Your task to perform on an android device: Add "apple airpods pro" to the cart on walmart Image 0: 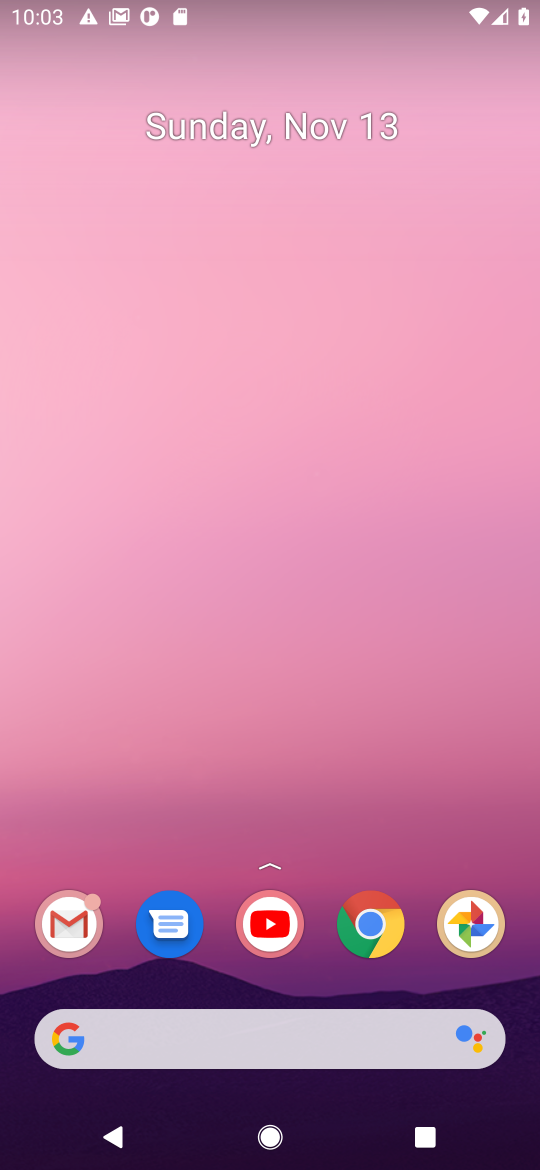
Step 0: click (373, 930)
Your task to perform on an android device: Add "apple airpods pro" to the cart on walmart Image 1: 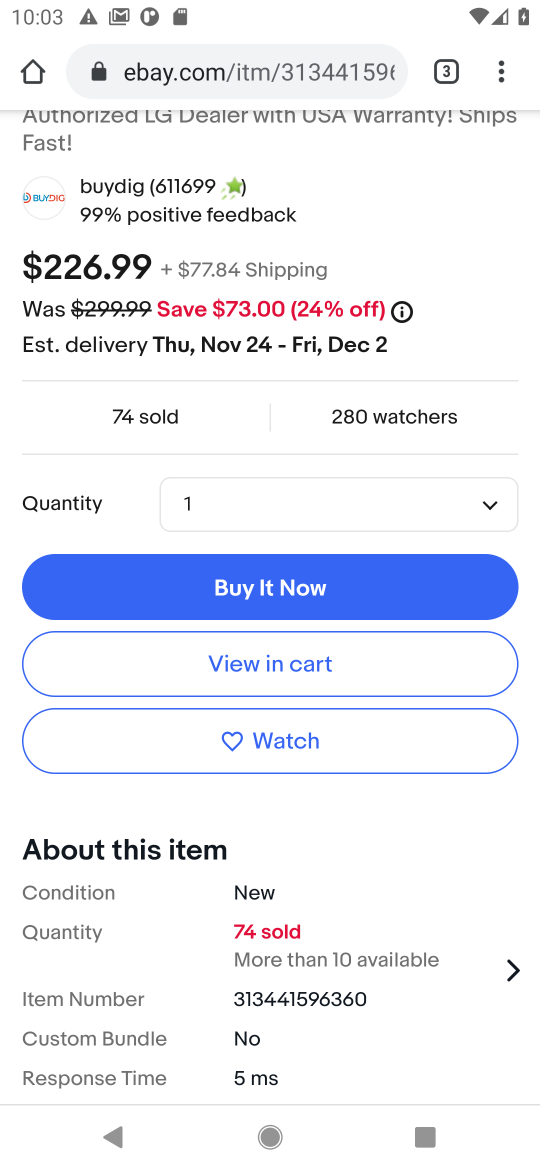
Step 1: click (208, 80)
Your task to perform on an android device: Add "apple airpods pro" to the cart on walmart Image 2: 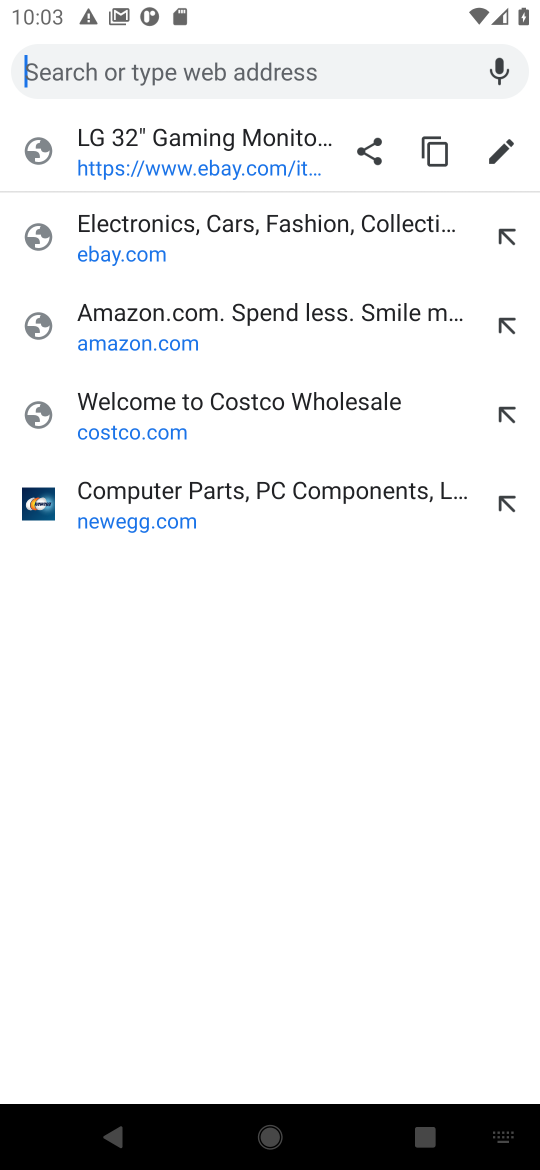
Step 2: type "walmart.com"
Your task to perform on an android device: Add "apple airpods pro" to the cart on walmart Image 3: 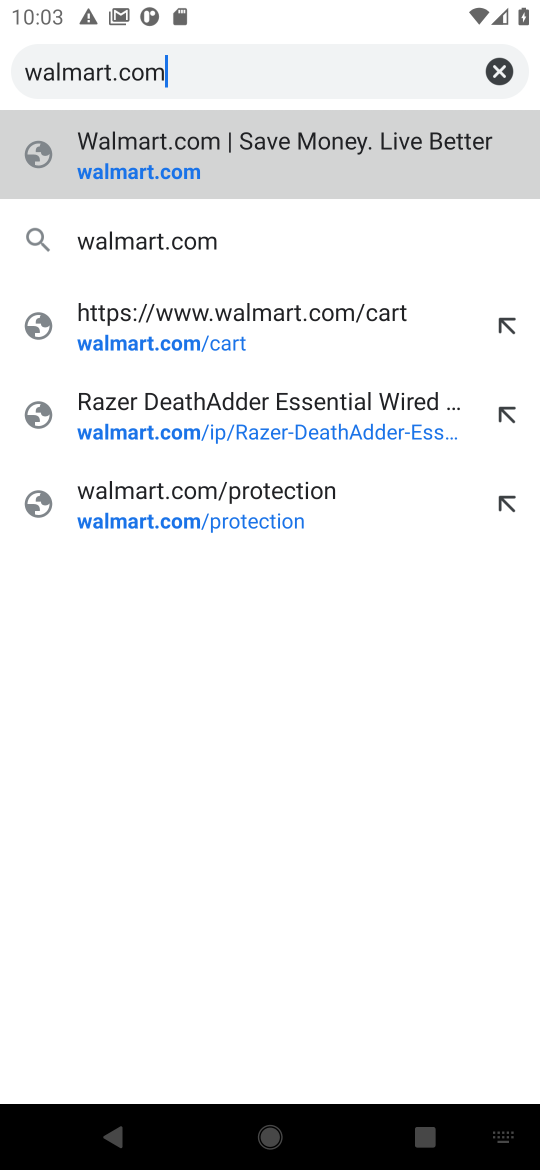
Step 3: click (131, 187)
Your task to perform on an android device: Add "apple airpods pro" to the cart on walmart Image 4: 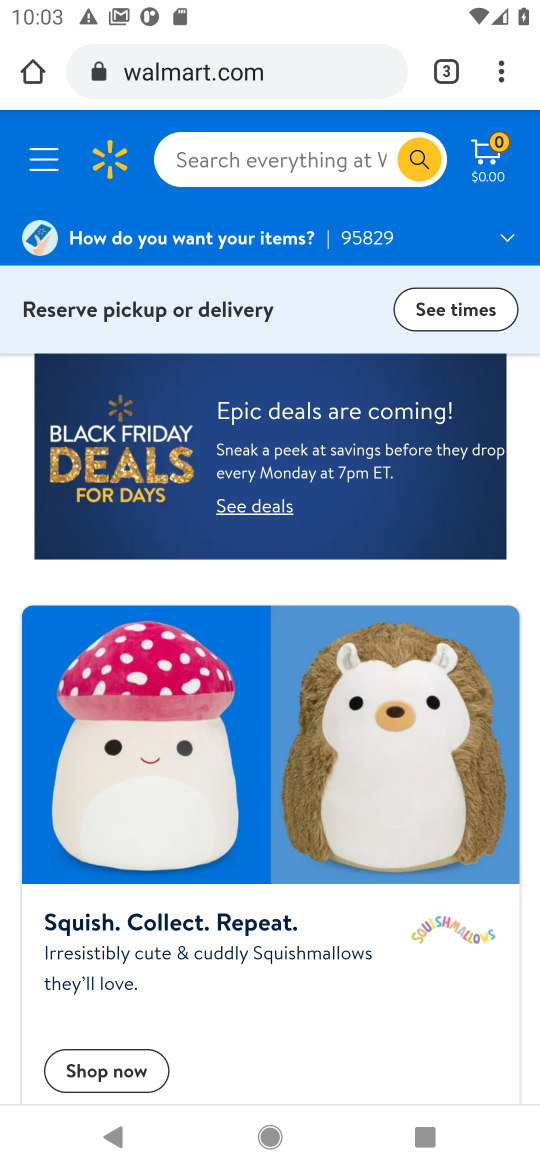
Step 4: click (341, 157)
Your task to perform on an android device: Add "apple airpods pro" to the cart on walmart Image 5: 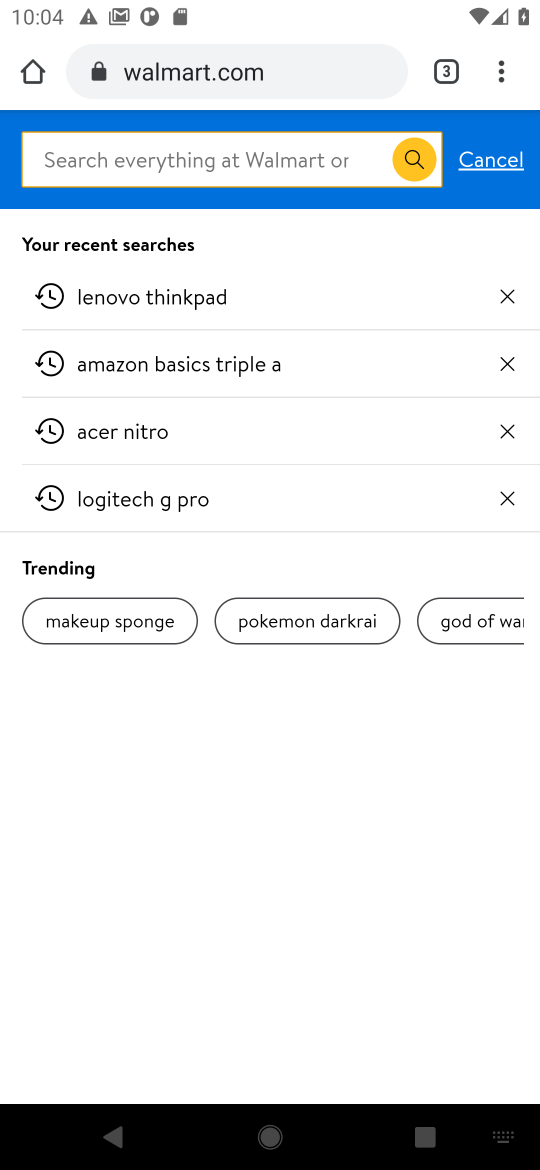
Step 5: type "apple airpods pro"
Your task to perform on an android device: Add "apple airpods pro" to the cart on walmart Image 6: 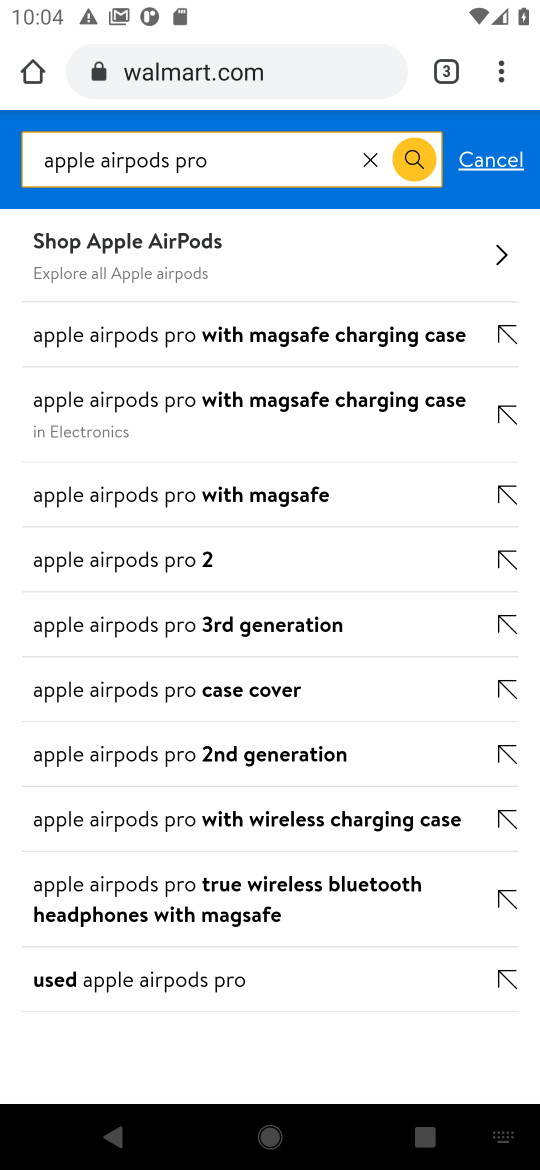
Step 6: click (415, 166)
Your task to perform on an android device: Add "apple airpods pro" to the cart on walmart Image 7: 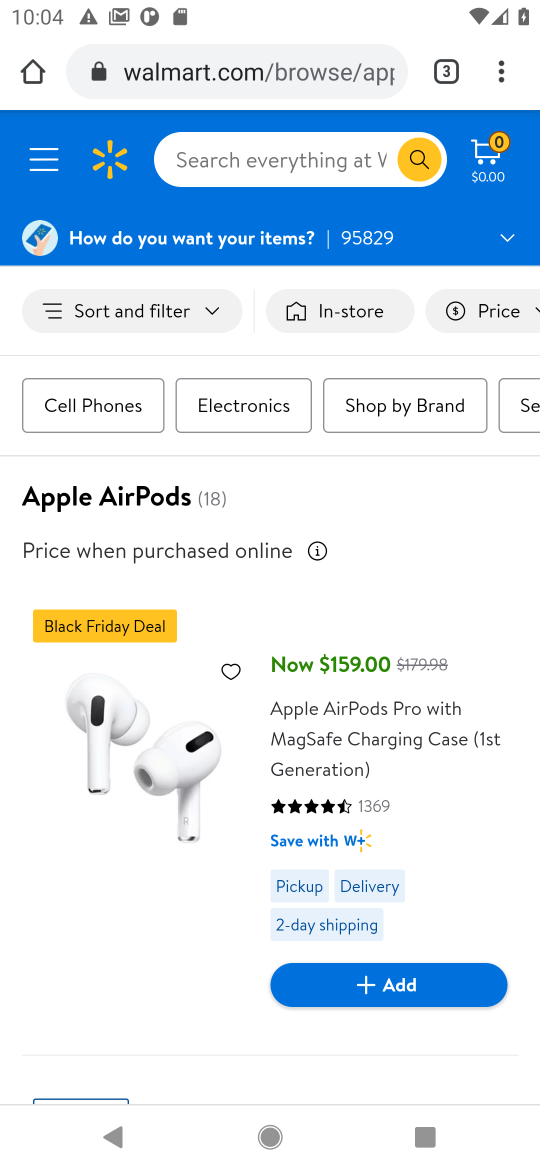
Step 7: click (157, 786)
Your task to perform on an android device: Add "apple airpods pro" to the cart on walmart Image 8: 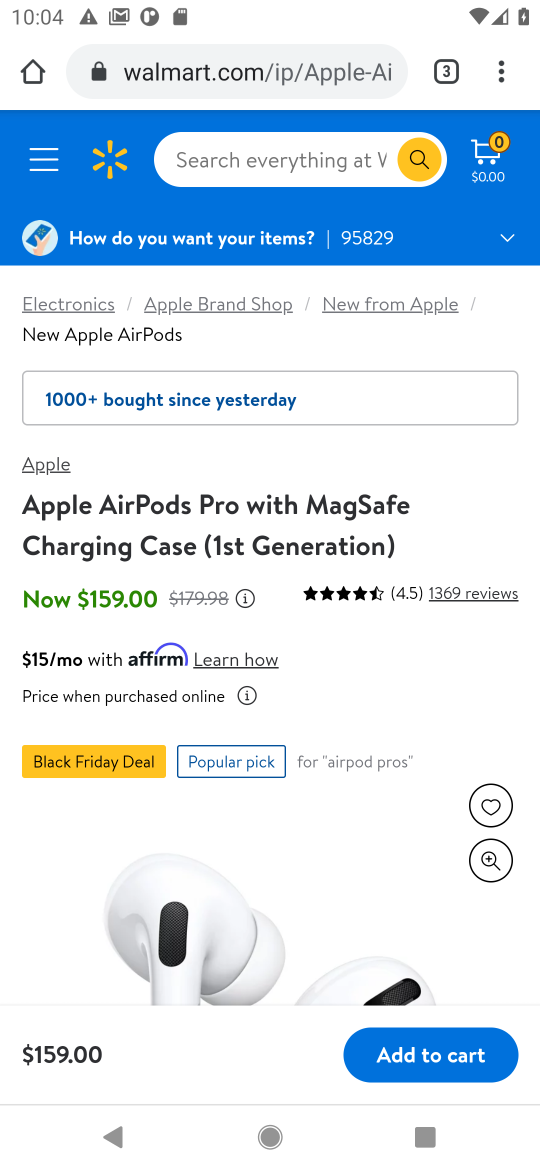
Step 8: click (430, 1071)
Your task to perform on an android device: Add "apple airpods pro" to the cart on walmart Image 9: 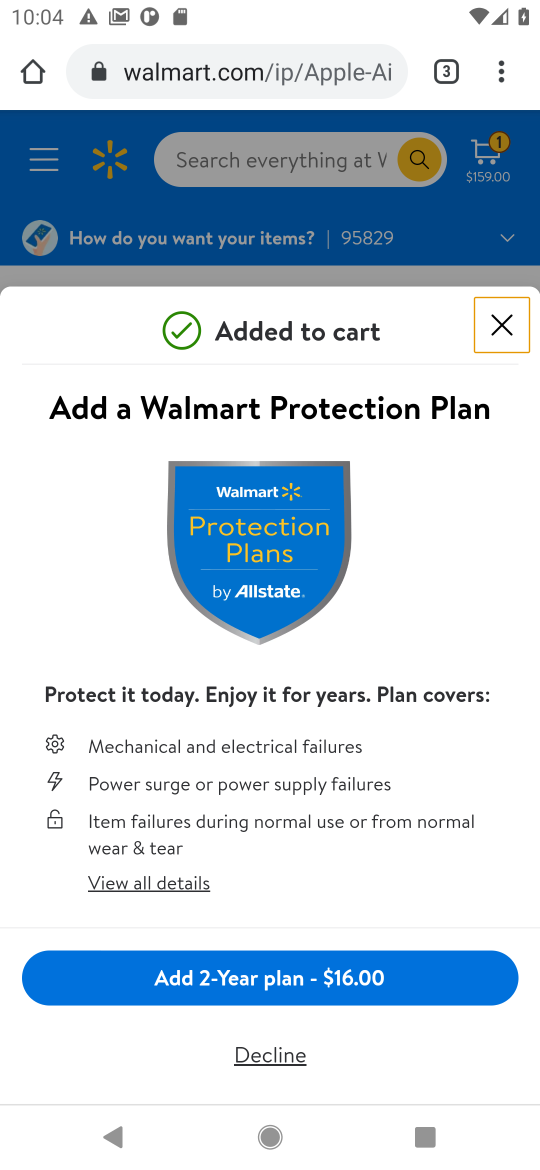
Step 9: task complete